Your task to perform on an android device: Play the last video I watched on Youtube Image 0: 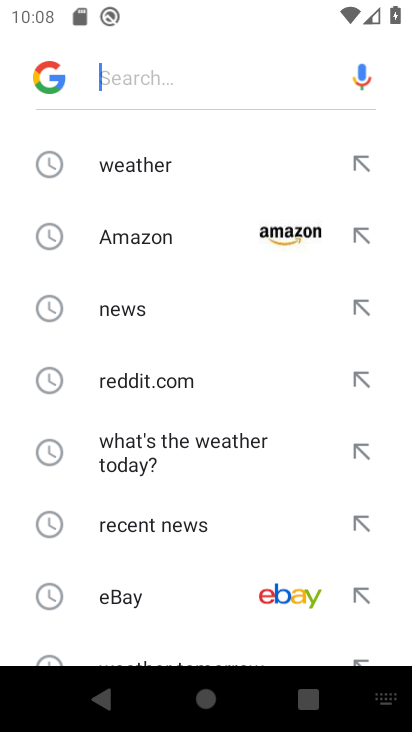
Step 0: press home button
Your task to perform on an android device: Play the last video I watched on Youtube Image 1: 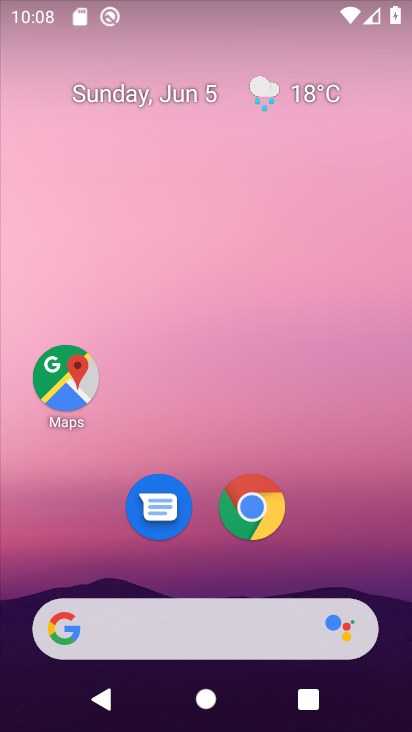
Step 1: drag from (188, 576) to (227, 134)
Your task to perform on an android device: Play the last video I watched on Youtube Image 2: 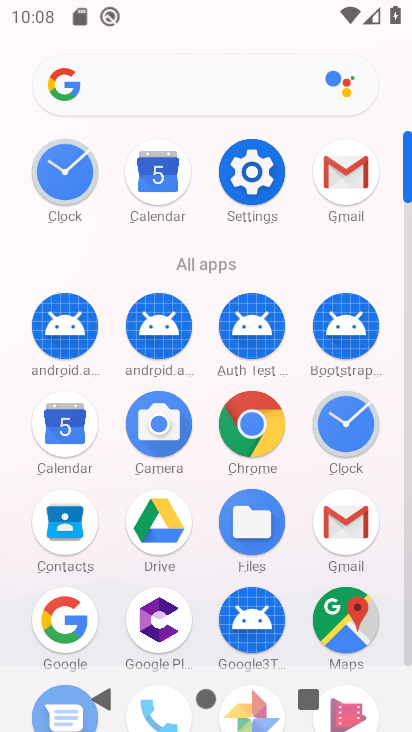
Step 2: drag from (295, 562) to (375, 56)
Your task to perform on an android device: Play the last video I watched on Youtube Image 3: 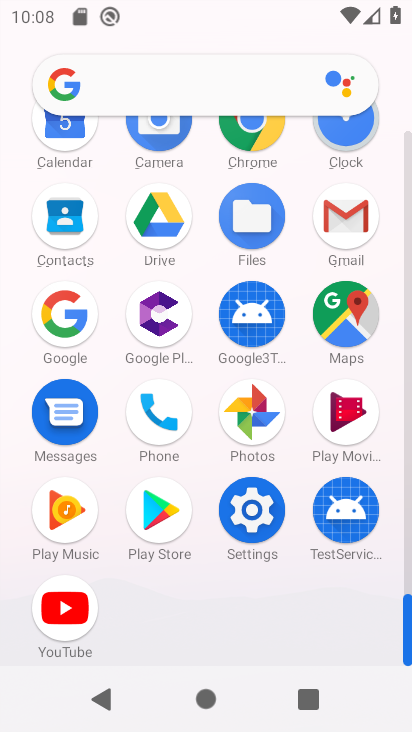
Step 3: click (61, 619)
Your task to perform on an android device: Play the last video I watched on Youtube Image 4: 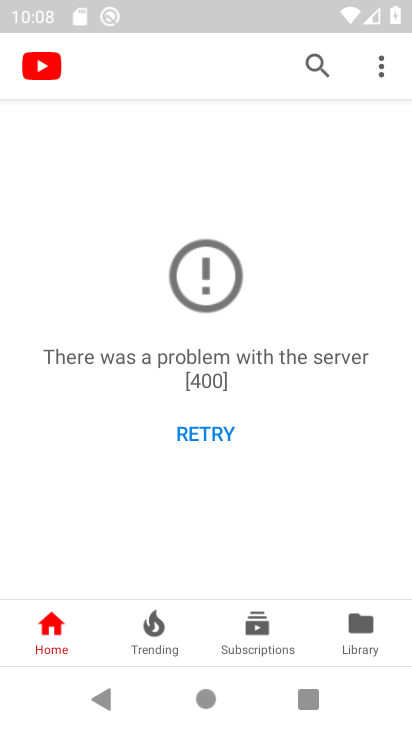
Step 4: click (368, 640)
Your task to perform on an android device: Play the last video I watched on Youtube Image 5: 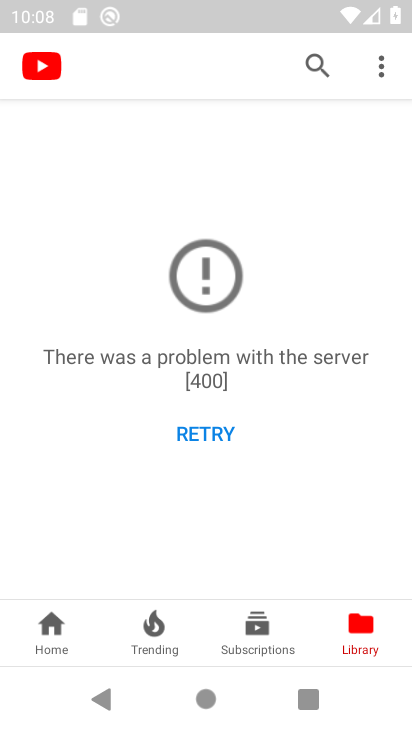
Step 5: click (203, 411)
Your task to perform on an android device: Play the last video I watched on Youtube Image 6: 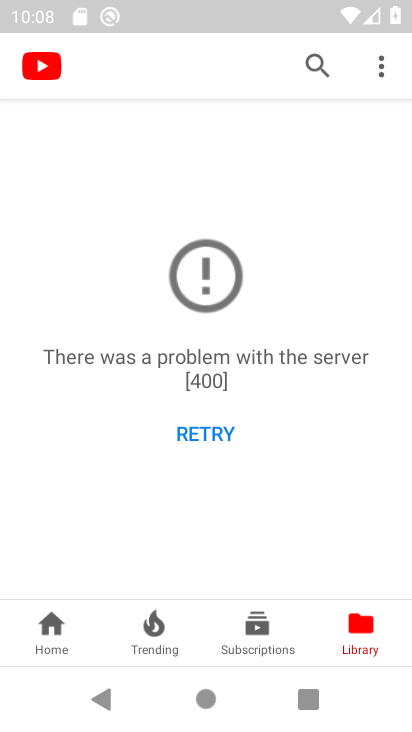
Step 6: click (204, 426)
Your task to perform on an android device: Play the last video I watched on Youtube Image 7: 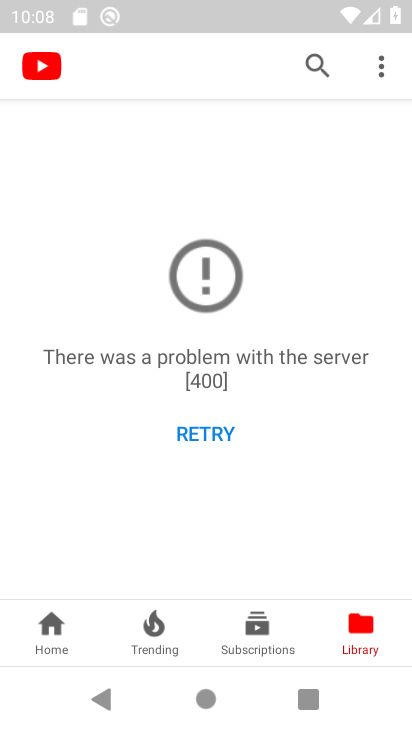
Step 7: click (205, 425)
Your task to perform on an android device: Play the last video I watched on Youtube Image 8: 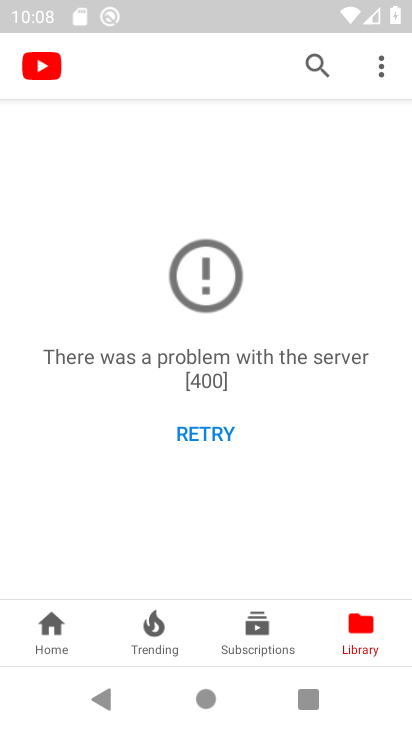
Step 8: click (204, 431)
Your task to perform on an android device: Play the last video I watched on Youtube Image 9: 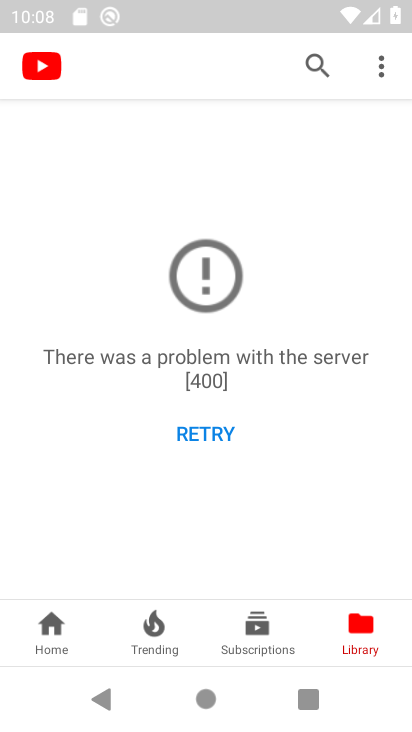
Step 9: click (205, 433)
Your task to perform on an android device: Play the last video I watched on Youtube Image 10: 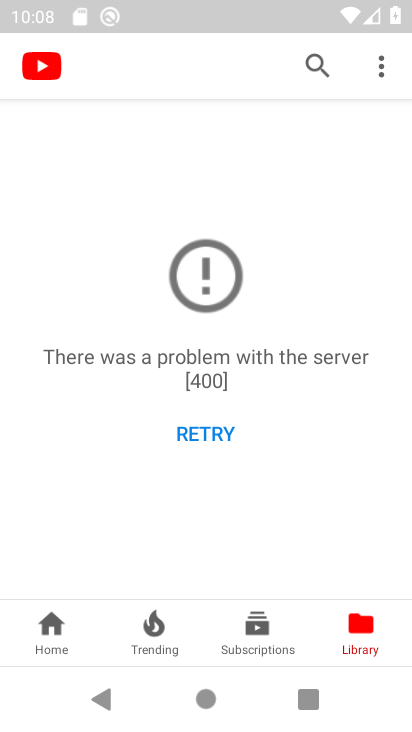
Step 10: task complete